Your task to perform on an android device: open a bookmark in the chrome app Image 0: 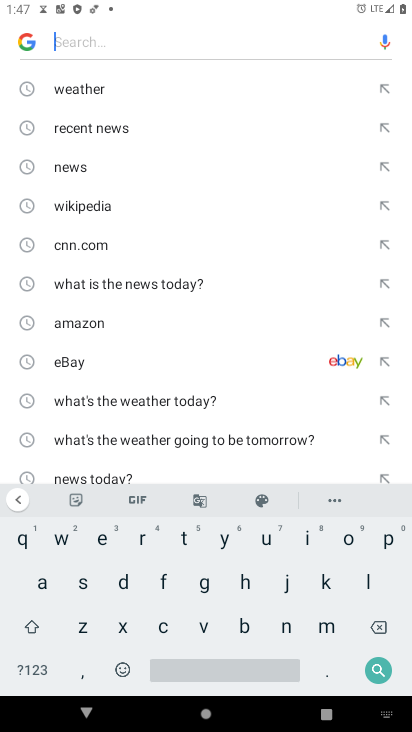
Step 0: press home button
Your task to perform on an android device: open a bookmark in the chrome app Image 1: 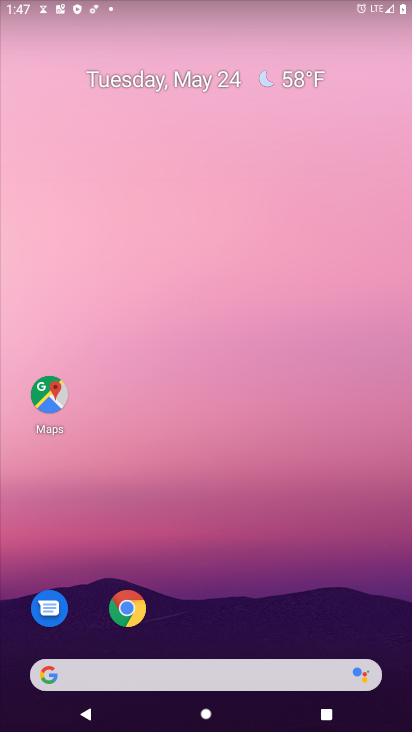
Step 1: drag from (310, 676) to (236, 157)
Your task to perform on an android device: open a bookmark in the chrome app Image 2: 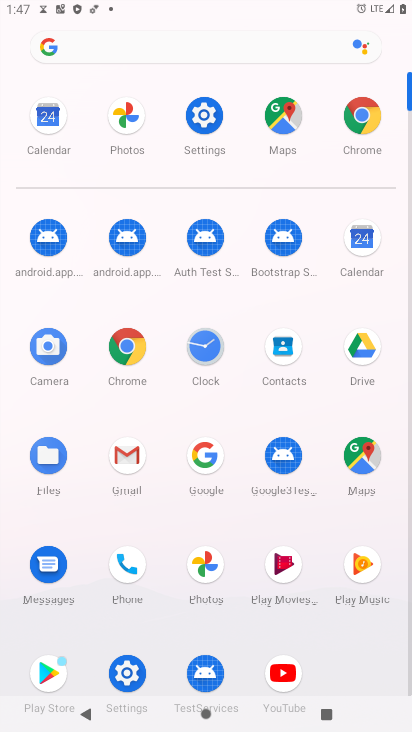
Step 2: click (351, 127)
Your task to perform on an android device: open a bookmark in the chrome app Image 3: 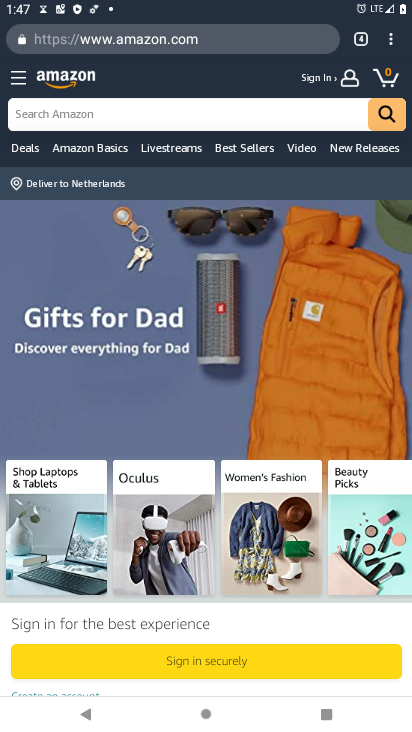
Step 3: click (392, 39)
Your task to perform on an android device: open a bookmark in the chrome app Image 4: 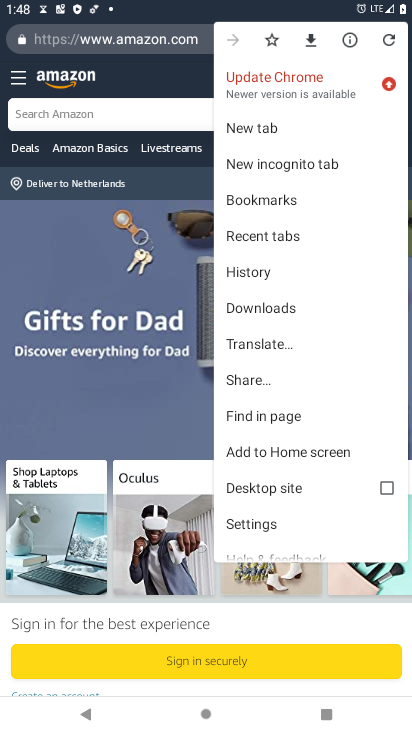
Step 4: click (267, 194)
Your task to perform on an android device: open a bookmark in the chrome app Image 5: 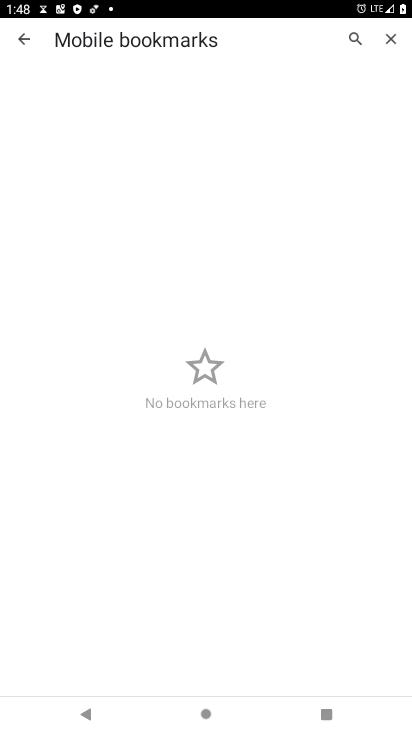
Step 5: task complete